Your task to perform on an android device: change text size in settings app Image 0: 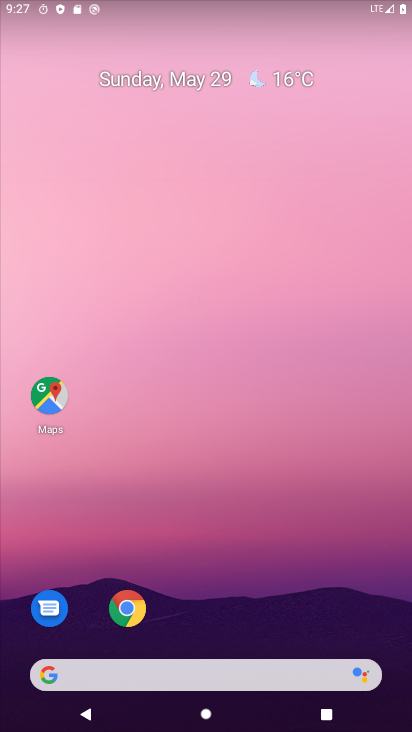
Step 0: drag from (204, 596) to (207, 107)
Your task to perform on an android device: change text size in settings app Image 1: 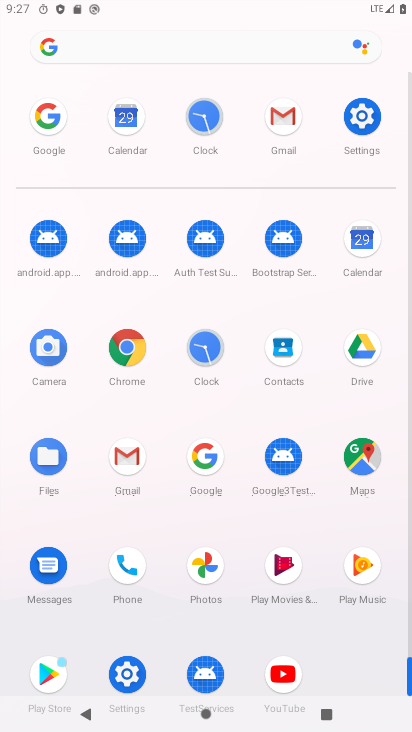
Step 1: click (361, 123)
Your task to perform on an android device: change text size in settings app Image 2: 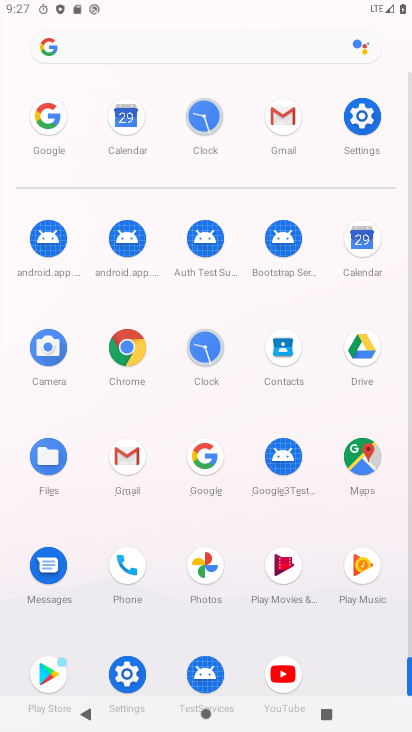
Step 2: click (363, 130)
Your task to perform on an android device: change text size in settings app Image 3: 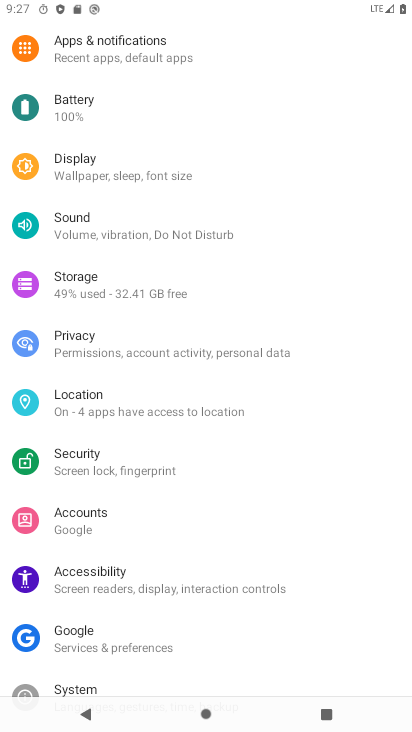
Step 3: click (105, 185)
Your task to perform on an android device: change text size in settings app Image 4: 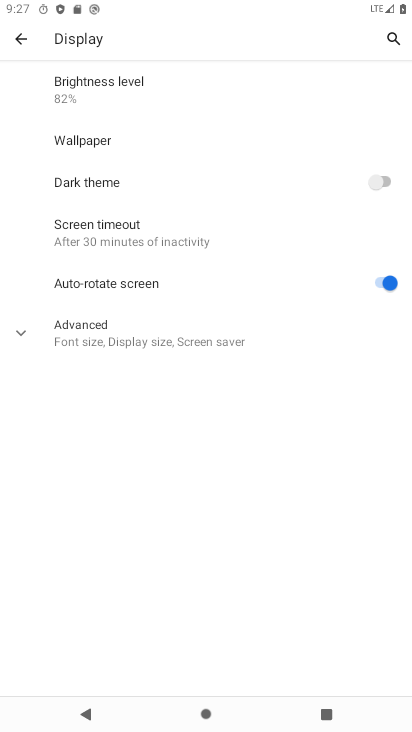
Step 4: click (128, 345)
Your task to perform on an android device: change text size in settings app Image 5: 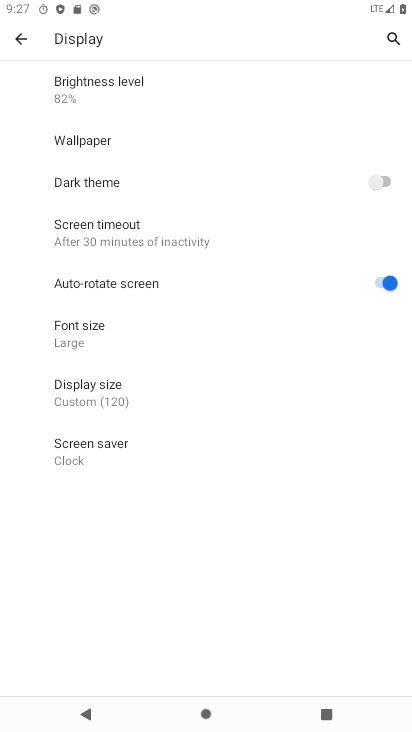
Step 5: click (70, 324)
Your task to perform on an android device: change text size in settings app Image 6: 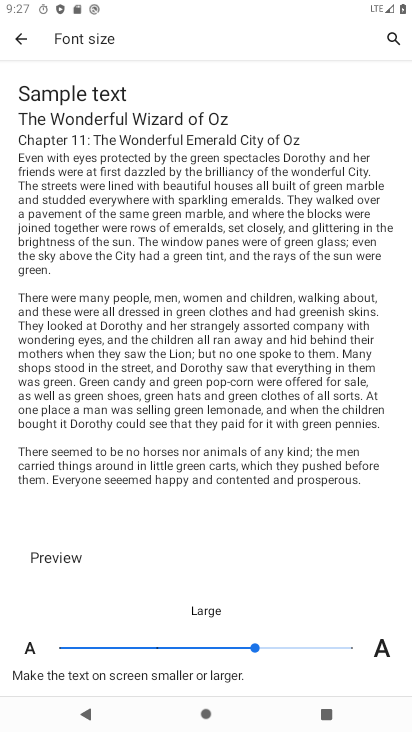
Step 6: click (175, 644)
Your task to perform on an android device: change text size in settings app Image 7: 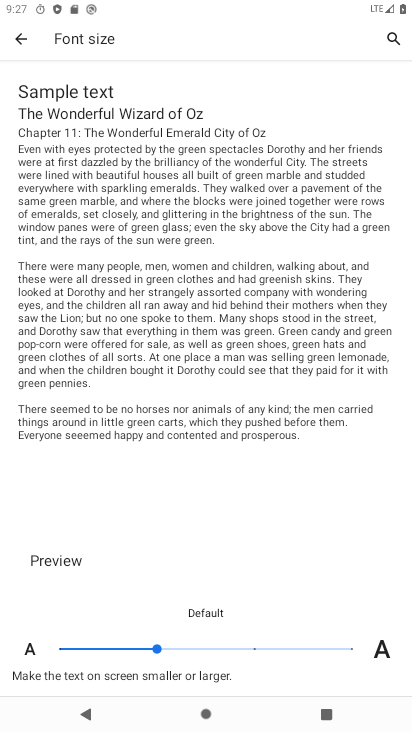
Step 7: task complete